Your task to perform on an android device: What's on my calendar today? Image 0: 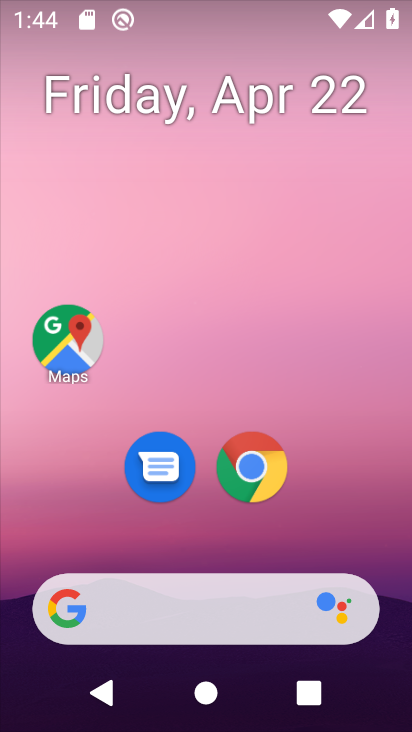
Step 0: drag from (325, 534) to (327, 191)
Your task to perform on an android device: What's on my calendar today? Image 1: 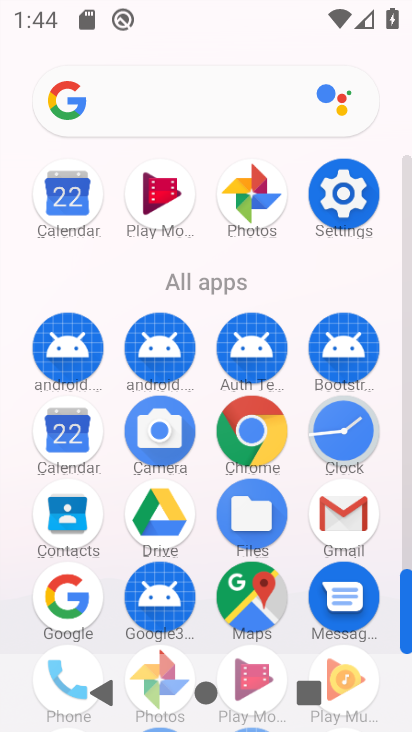
Step 1: click (86, 441)
Your task to perform on an android device: What's on my calendar today? Image 2: 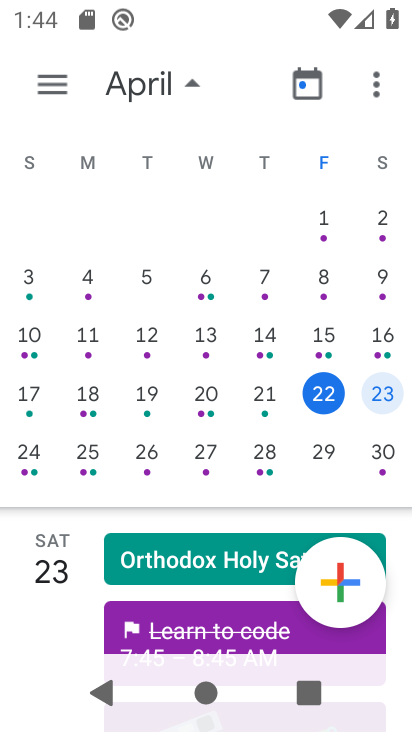
Step 2: drag from (283, 429) to (305, 304)
Your task to perform on an android device: What's on my calendar today? Image 3: 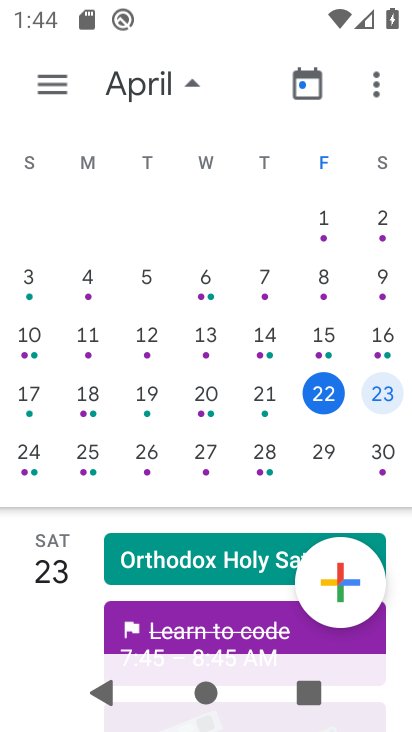
Step 3: click (329, 402)
Your task to perform on an android device: What's on my calendar today? Image 4: 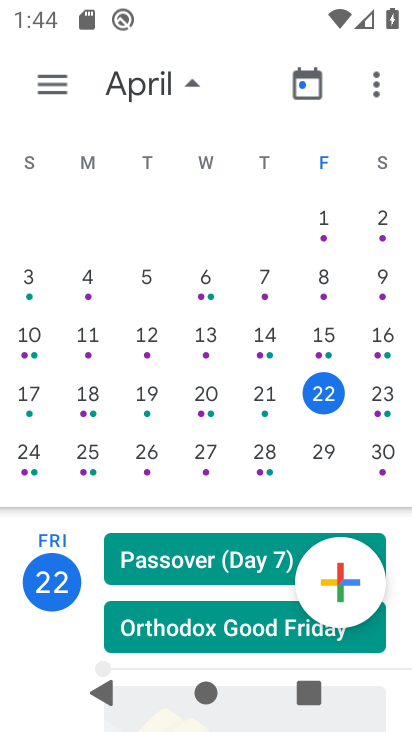
Step 4: task complete